Your task to perform on an android device: turn off improve location accuracy Image 0: 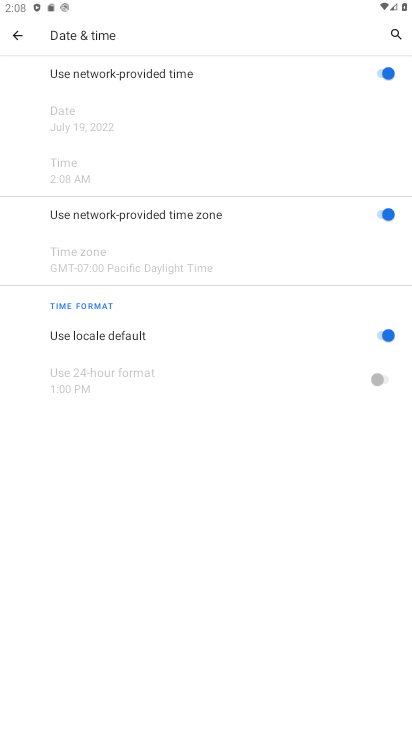
Step 0: click (15, 24)
Your task to perform on an android device: turn off improve location accuracy Image 1: 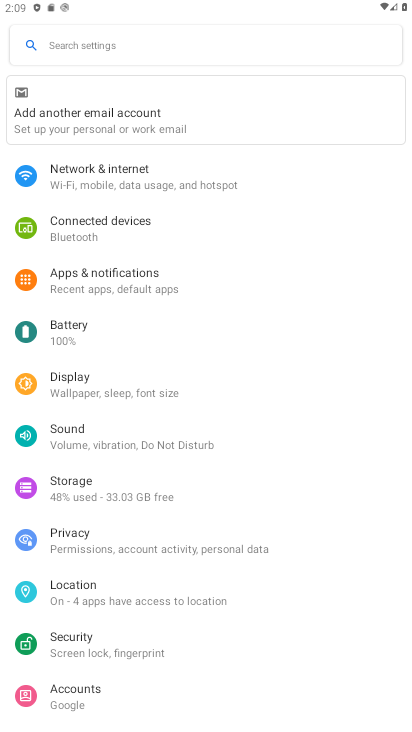
Step 1: click (114, 595)
Your task to perform on an android device: turn off improve location accuracy Image 2: 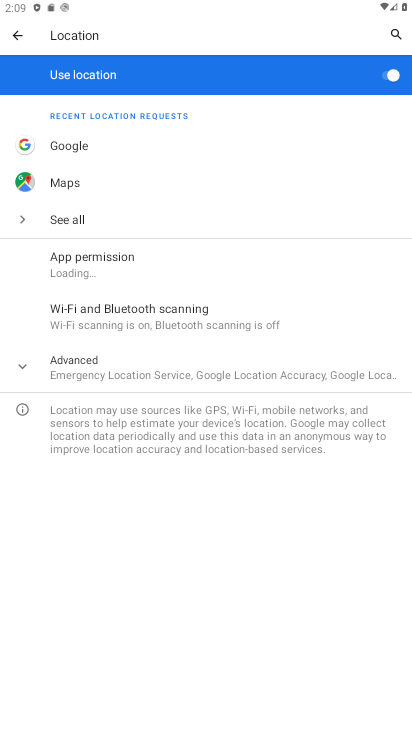
Step 2: click (133, 367)
Your task to perform on an android device: turn off improve location accuracy Image 3: 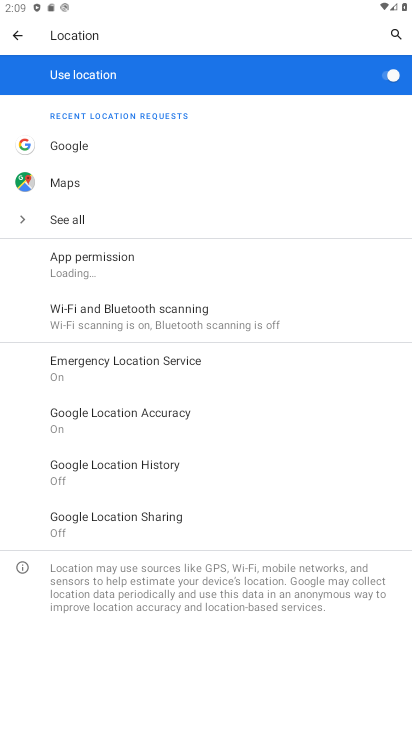
Step 3: click (157, 421)
Your task to perform on an android device: turn off improve location accuracy Image 4: 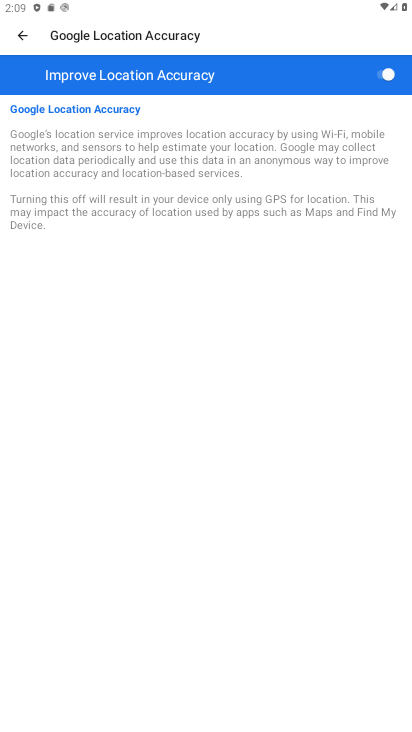
Step 4: click (379, 69)
Your task to perform on an android device: turn off improve location accuracy Image 5: 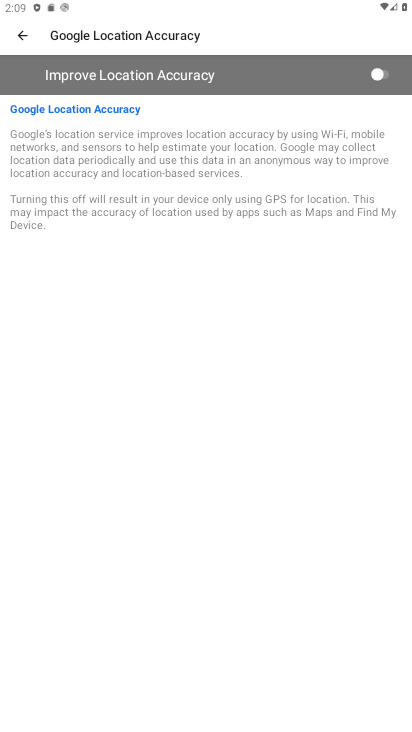
Step 5: task complete